Your task to perform on an android device: turn notification dots on Image 0: 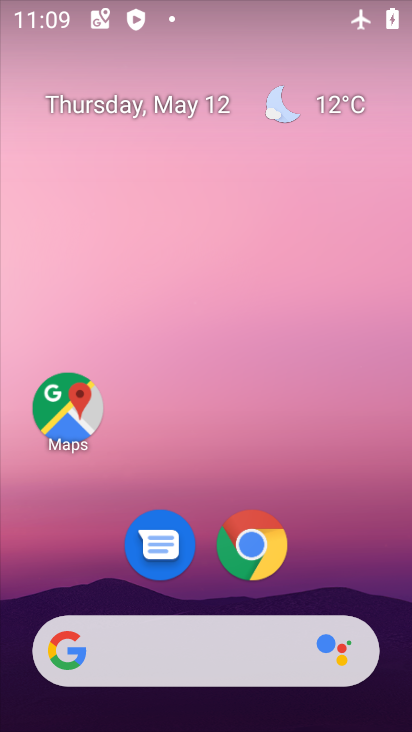
Step 0: drag from (202, 586) to (194, 91)
Your task to perform on an android device: turn notification dots on Image 1: 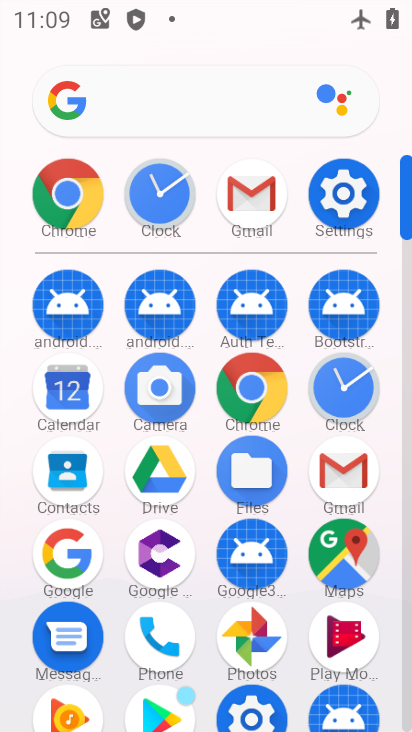
Step 1: click (342, 185)
Your task to perform on an android device: turn notification dots on Image 2: 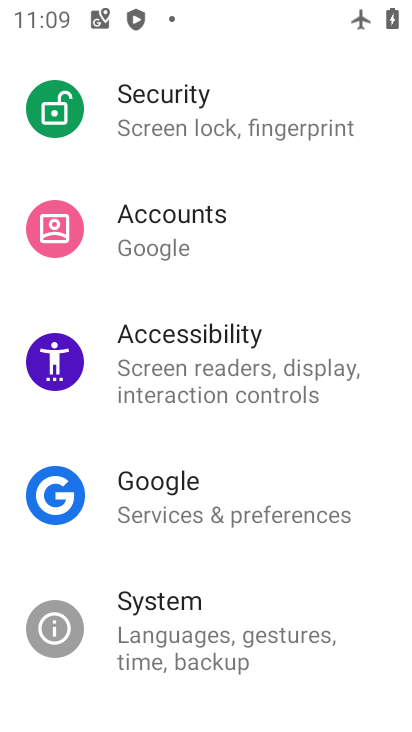
Step 2: drag from (185, 157) to (189, 703)
Your task to perform on an android device: turn notification dots on Image 3: 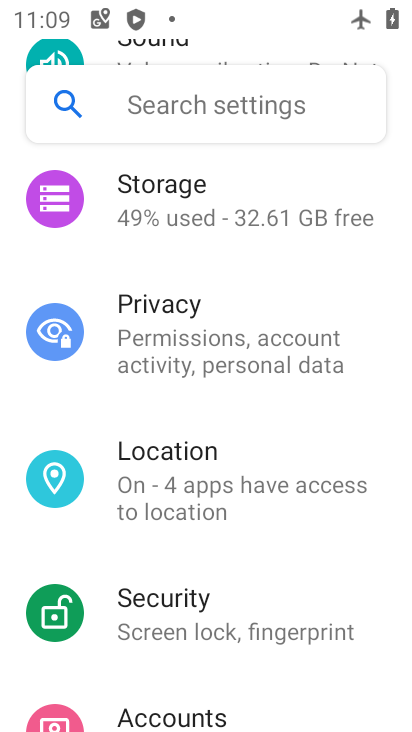
Step 3: drag from (174, 179) to (197, 669)
Your task to perform on an android device: turn notification dots on Image 4: 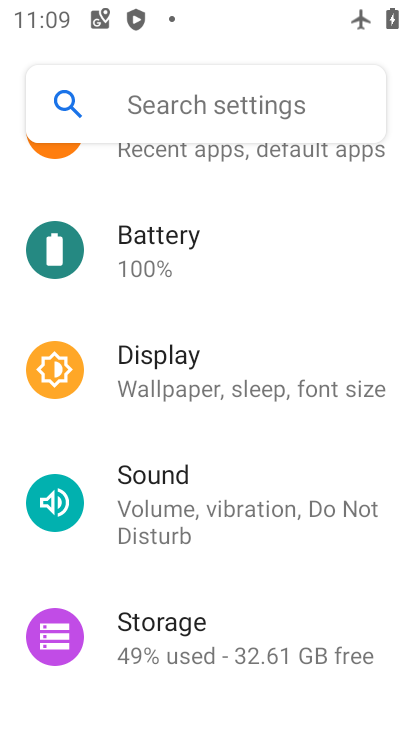
Step 4: drag from (189, 176) to (197, 553)
Your task to perform on an android device: turn notification dots on Image 5: 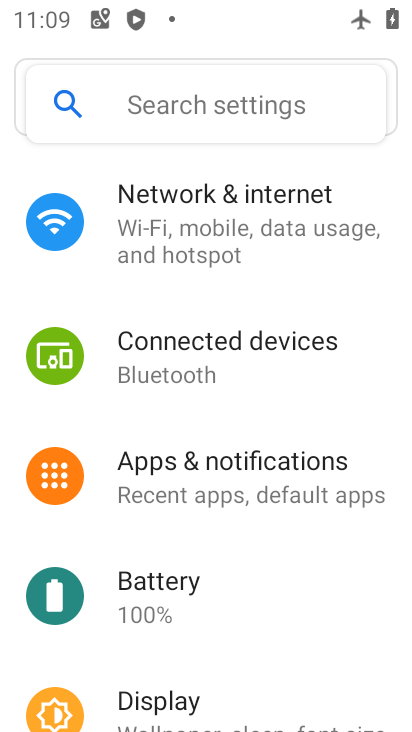
Step 5: click (100, 471)
Your task to perform on an android device: turn notification dots on Image 6: 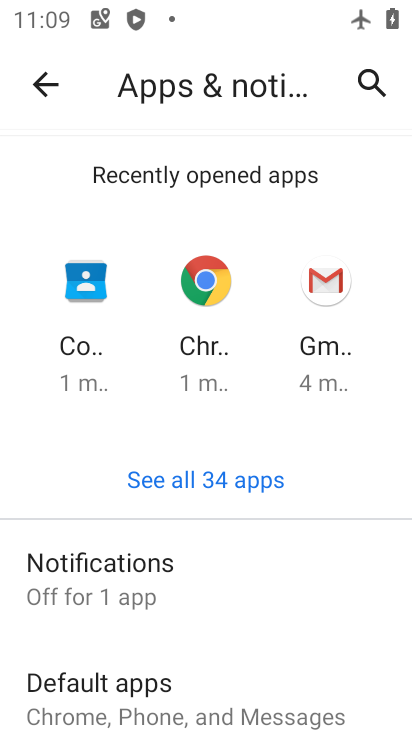
Step 6: click (180, 573)
Your task to perform on an android device: turn notification dots on Image 7: 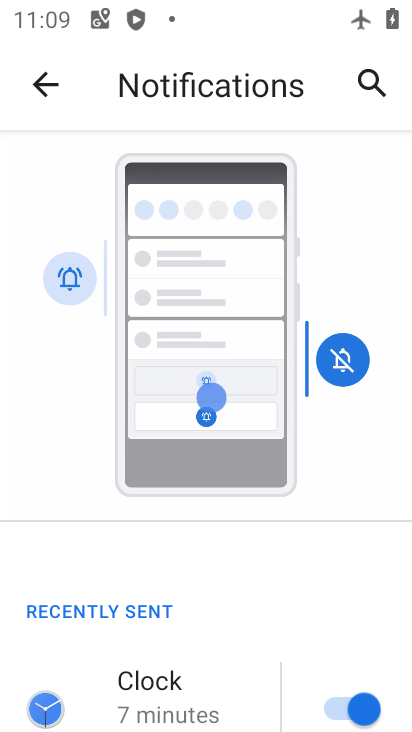
Step 7: drag from (228, 666) to (250, 227)
Your task to perform on an android device: turn notification dots on Image 8: 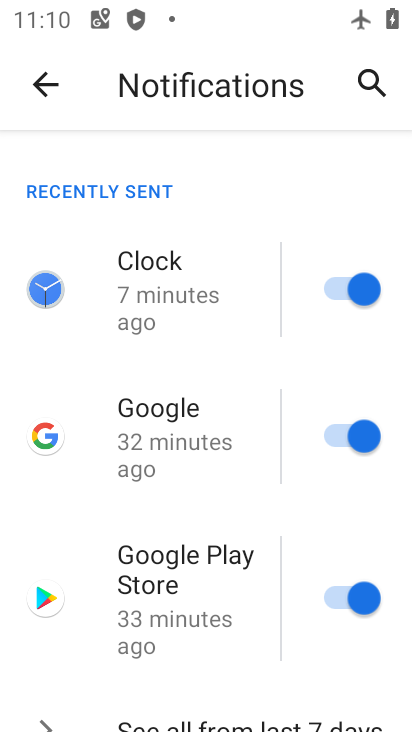
Step 8: drag from (215, 697) to (204, 252)
Your task to perform on an android device: turn notification dots on Image 9: 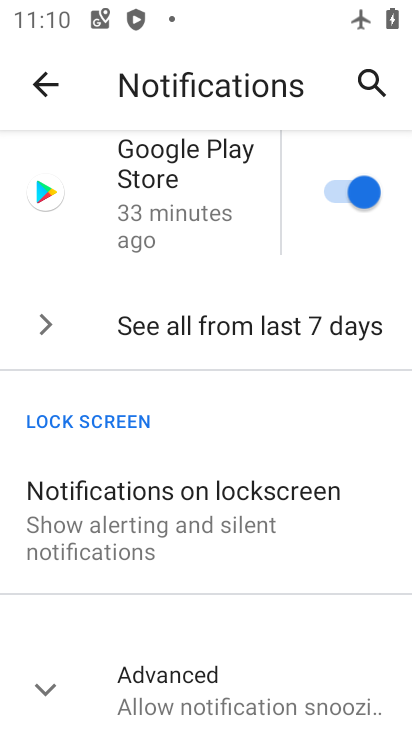
Step 9: click (51, 680)
Your task to perform on an android device: turn notification dots on Image 10: 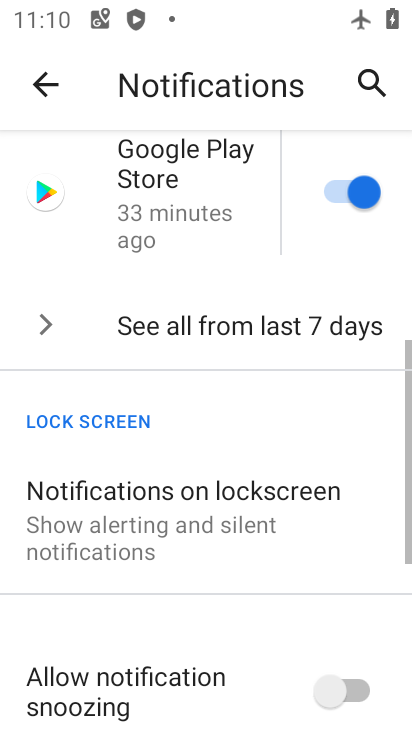
Step 10: task complete